Your task to perform on an android device: Open calendar and show me the first week of next month Image 0: 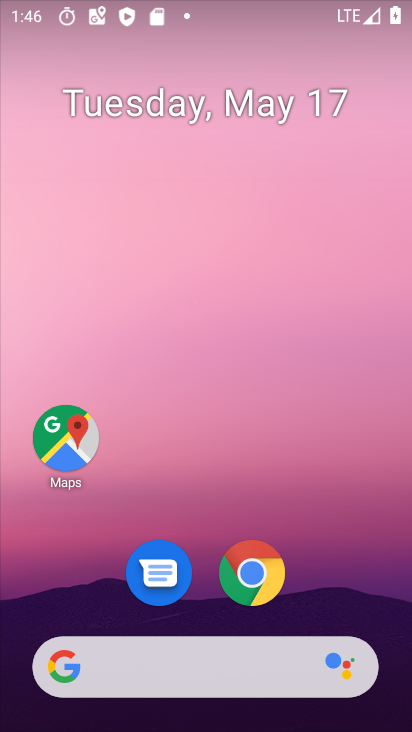
Step 0: drag from (164, 710) to (187, 52)
Your task to perform on an android device: Open calendar and show me the first week of next month Image 1: 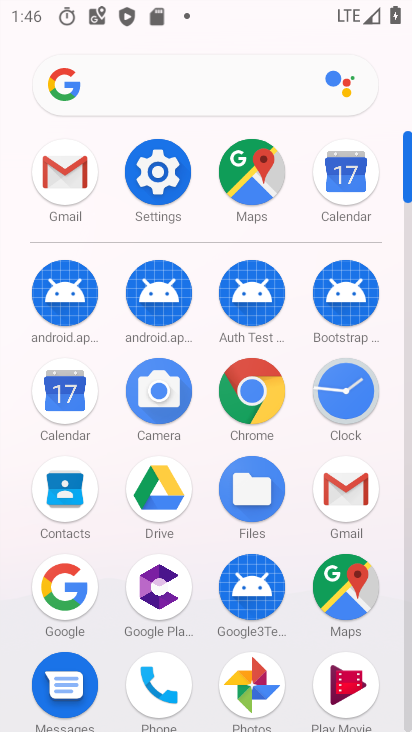
Step 1: click (71, 409)
Your task to perform on an android device: Open calendar and show me the first week of next month Image 2: 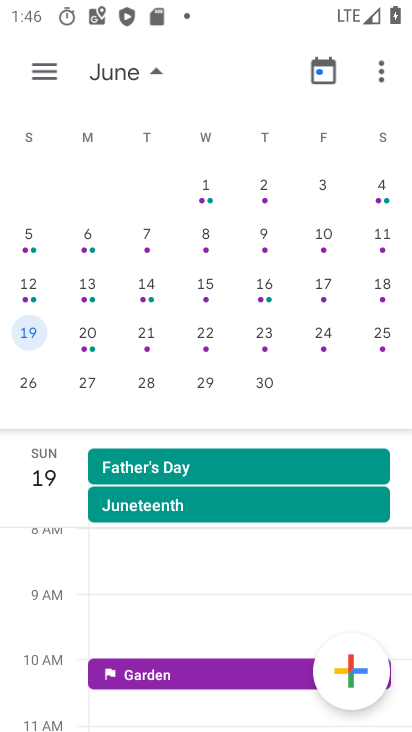
Step 2: drag from (325, 309) to (16, 362)
Your task to perform on an android device: Open calendar and show me the first week of next month Image 3: 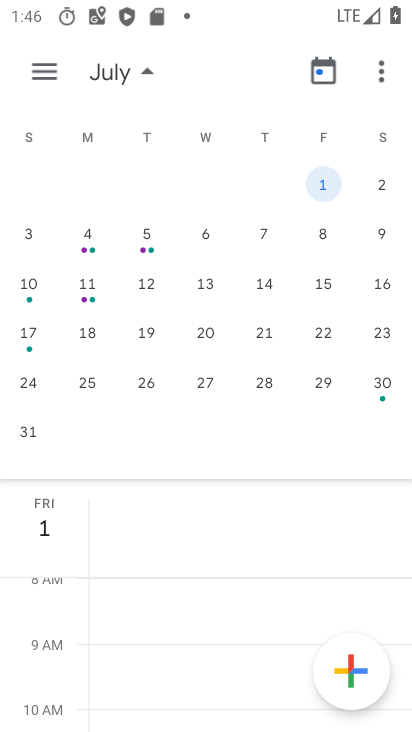
Step 3: drag from (96, 293) to (405, 339)
Your task to perform on an android device: Open calendar and show me the first week of next month Image 4: 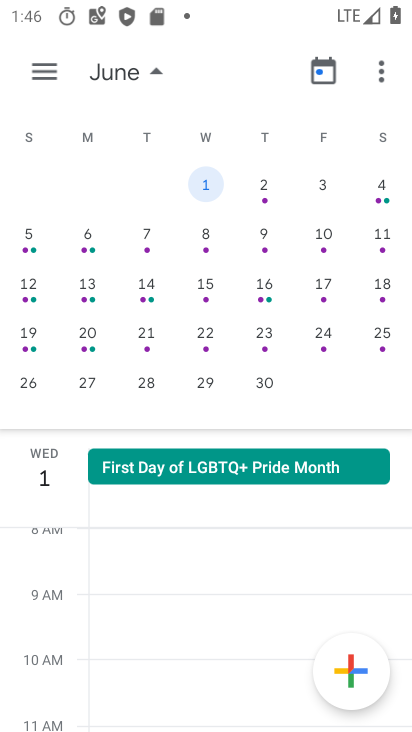
Step 4: click (204, 181)
Your task to perform on an android device: Open calendar and show me the first week of next month Image 5: 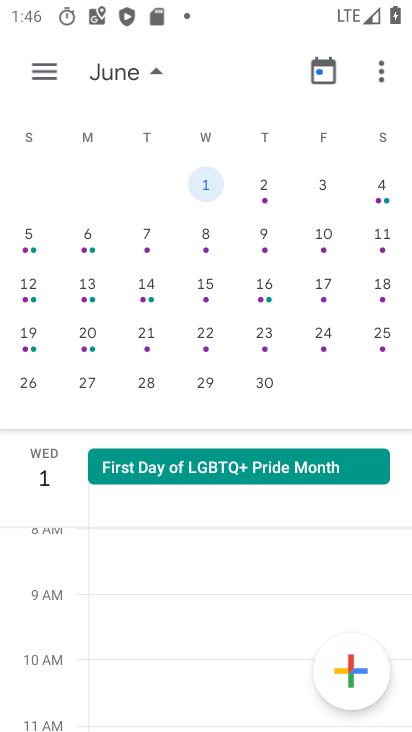
Step 5: task complete